Your task to perform on an android device: toggle notification dots Image 0: 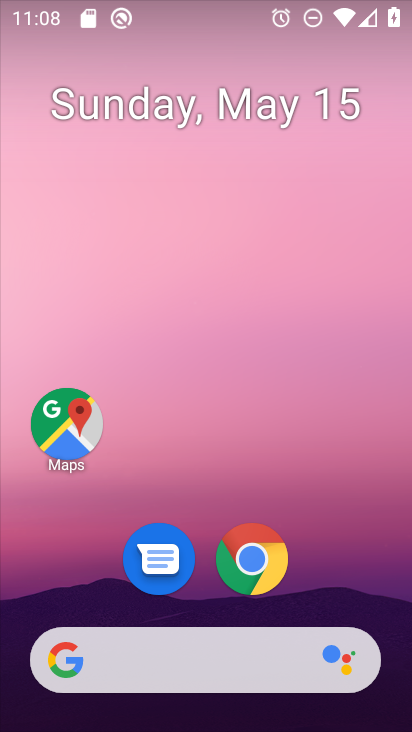
Step 0: drag from (361, 567) to (324, 74)
Your task to perform on an android device: toggle notification dots Image 1: 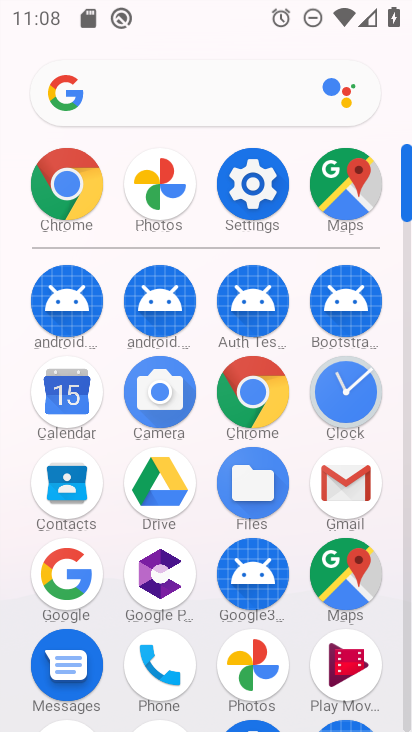
Step 1: click (253, 159)
Your task to perform on an android device: toggle notification dots Image 2: 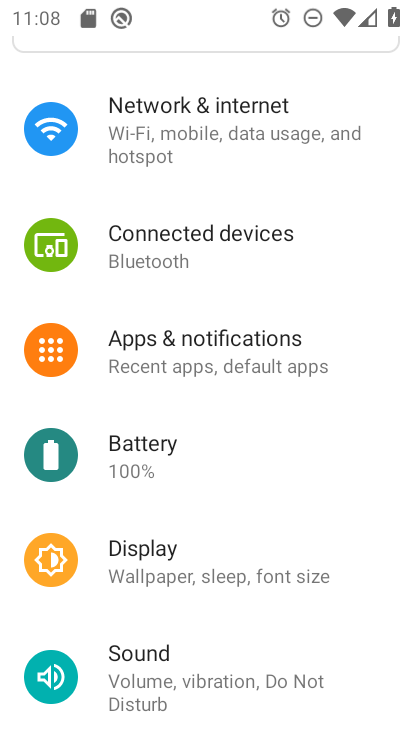
Step 2: click (221, 336)
Your task to perform on an android device: toggle notification dots Image 3: 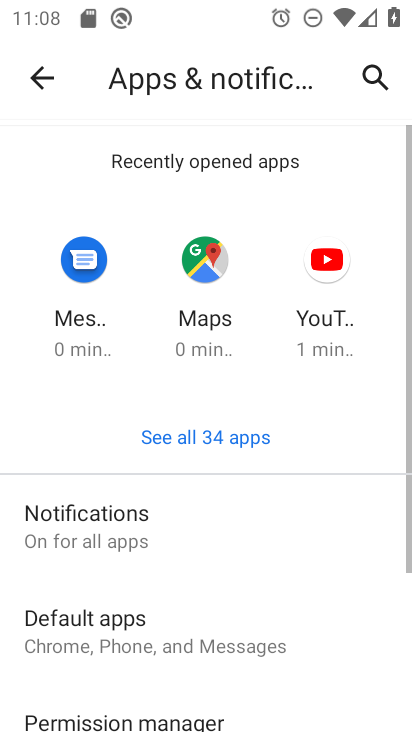
Step 3: drag from (265, 529) to (244, 275)
Your task to perform on an android device: toggle notification dots Image 4: 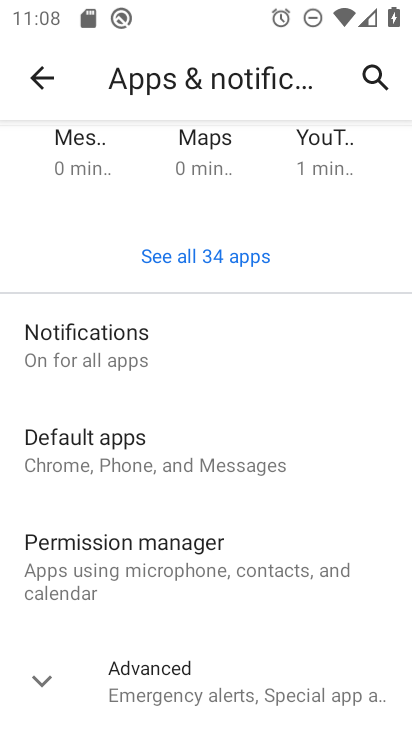
Step 4: click (253, 354)
Your task to perform on an android device: toggle notification dots Image 5: 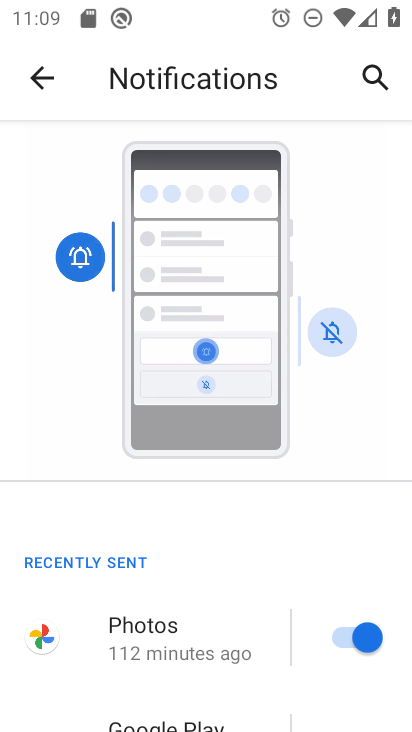
Step 5: drag from (251, 525) to (222, 368)
Your task to perform on an android device: toggle notification dots Image 6: 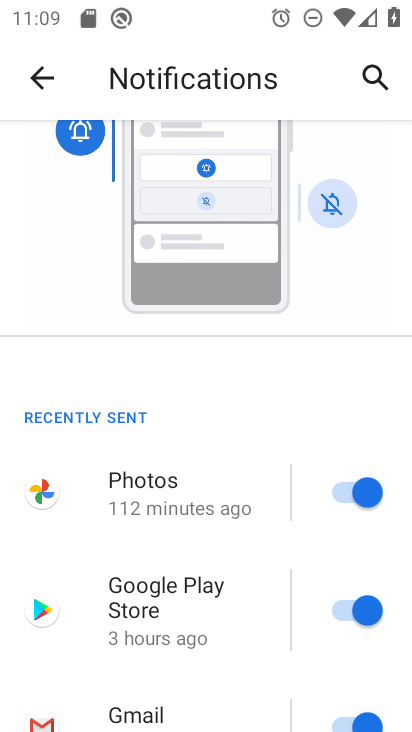
Step 6: drag from (217, 613) to (188, 501)
Your task to perform on an android device: toggle notification dots Image 7: 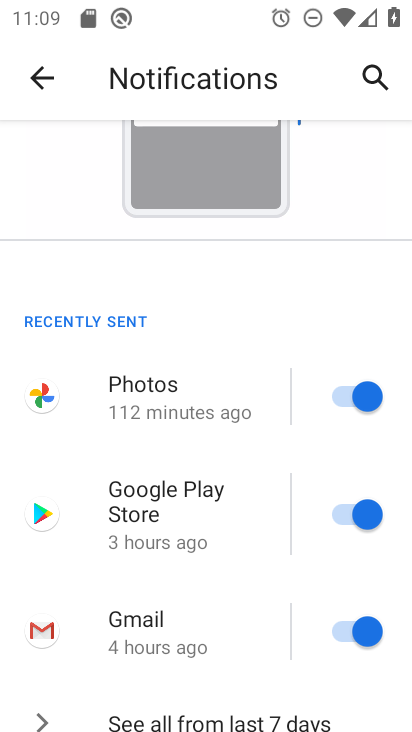
Step 7: drag from (216, 661) to (201, 311)
Your task to perform on an android device: toggle notification dots Image 8: 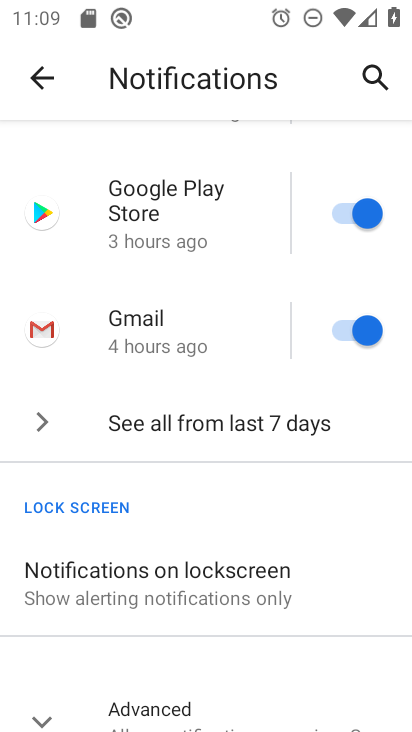
Step 8: drag from (242, 573) to (232, 402)
Your task to perform on an android device: toggle notification dots Image 9: 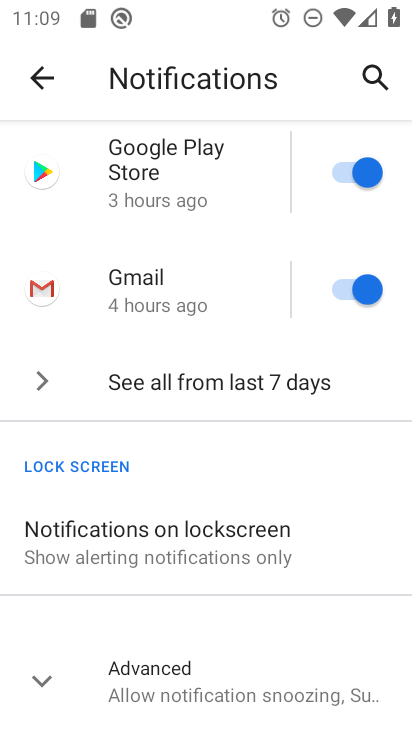
Step 9: click (284, 671)
Your task to perform on an android device: toggle notification dots Image 10: 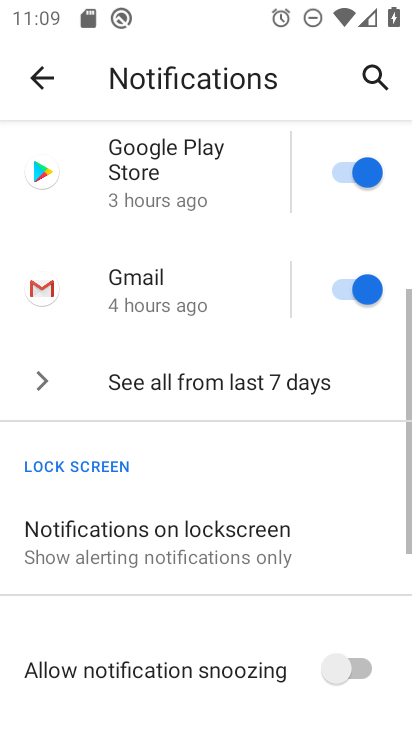
Step 10: drag from (280, 624) to (273, 349)
Your task to perform on an android device: toggle notification dots Image 11: 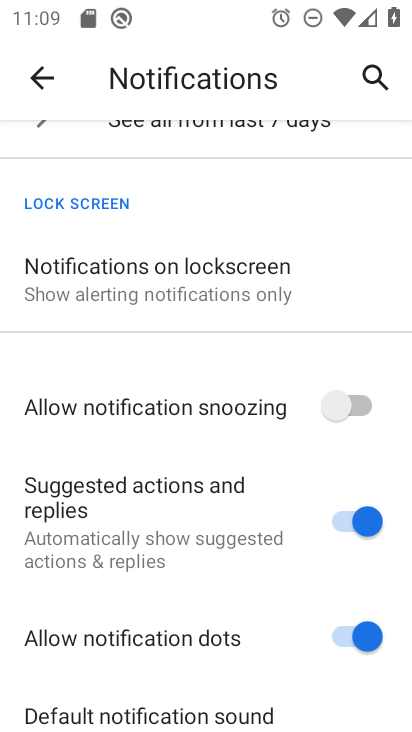
Step 11: click (357, 645)
Your task to perform on an android device: toggle notification dots Image 12: 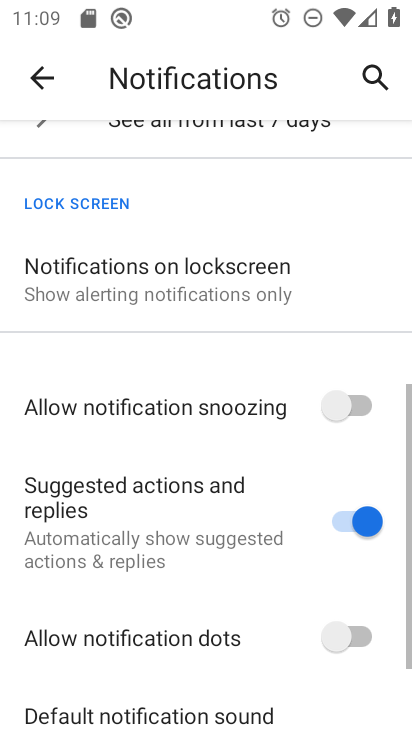
Step 12: task complete